Your task to perform on an android device: Open Google Maps and go to "Timeline" Image 0: 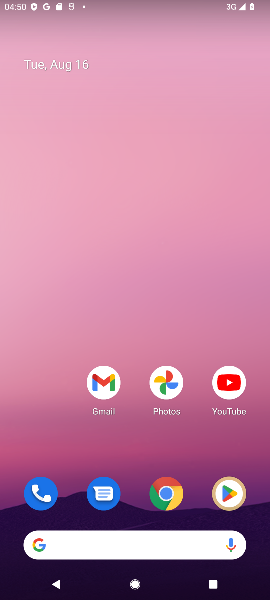
Step 0: press home button
Your task to perform on an android device: Open Google Maps and go to "Timeline" Image 1: 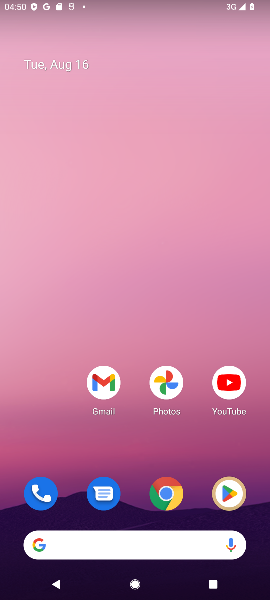
Step 1: drag from (12, 451) to (29, 152)
Your task to perform on an android device: Open Google Maps and go to "Timeline" Image 2: 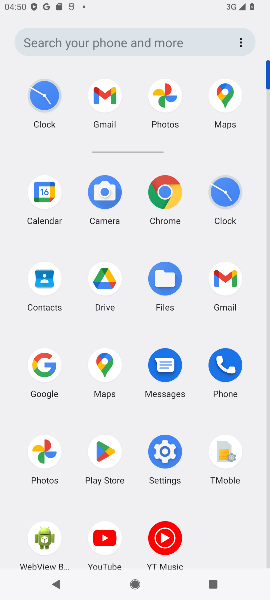
Step 2: click (108, 368)
Your task to perform on an android device: Open Google Maps and go to "Timeline" Image 3: 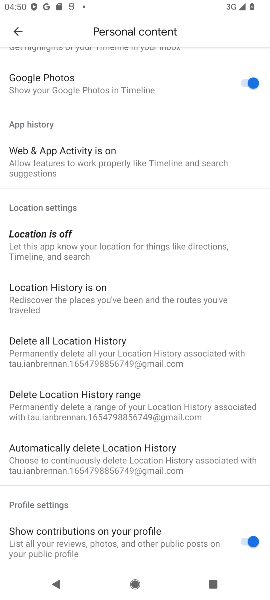
Step 3: press back button
Your task to perform on an android device: Open Google Maps and go to "Timeline" Image 4: 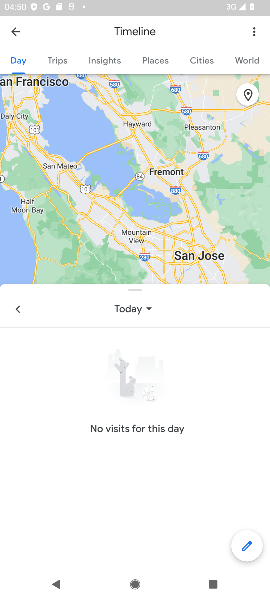
Step 4: press back button
Your task to perform on an android device: Open Google Maps and go to "Timeline" Image 5: 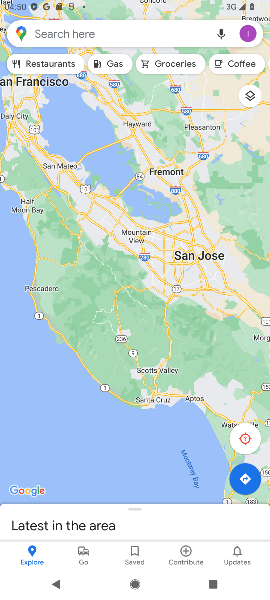
Step 5: press back button
Your task to perform on an android device: Open Google Maps and go to "Timeline" Image 6: 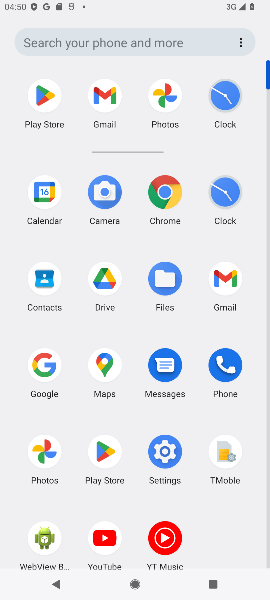
Step 6: click (102, 367)
Your task to perform on an android device: Open Google Maps and go to "Timeline" Image 7: 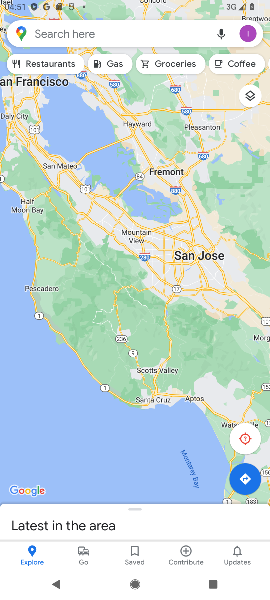
Step 7: click (243, 33)
Your task to perform on an android device: Open Google Maps and go to "Timeline" Image 8: 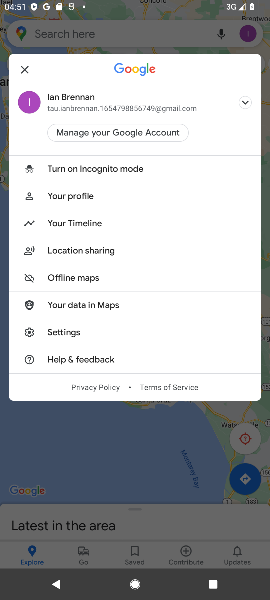
Step 8: click (105, 227)
Your task to perform on an android device: Open Google Maps and go to "Timeline" Image 9: 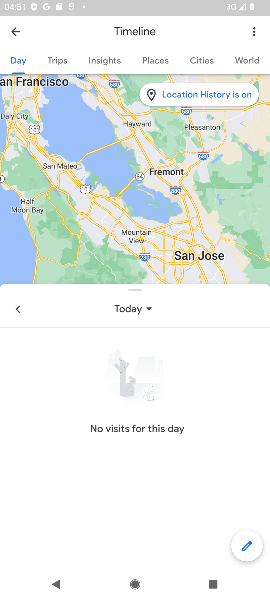
Step 9: task complete